Your task to perform on an android device: refresh tabs in the chrome app Image 0: 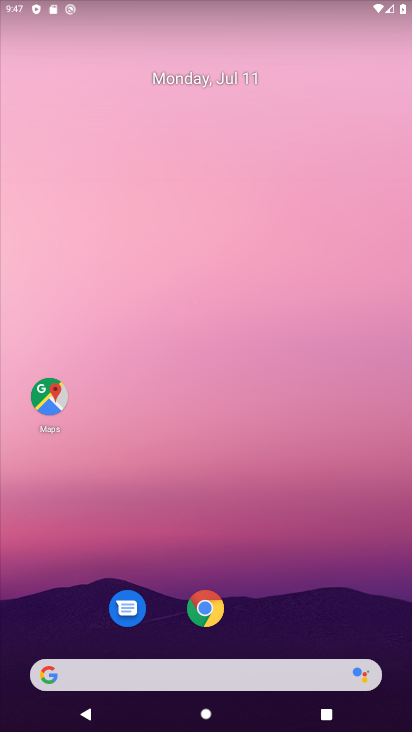
Step 0: click (204, 614)
Your task to perform on an android device: refresh tabs in the chrome app Image 1: 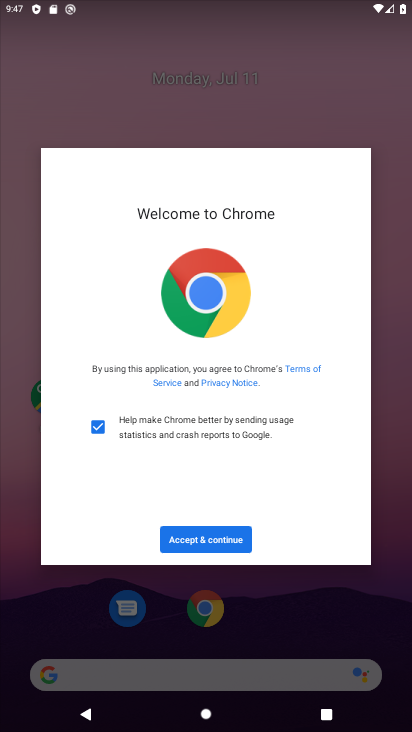
Step 1: click (188, 531)
Your task to perform on an android device: refresh tabs in the chrome app Image 2: 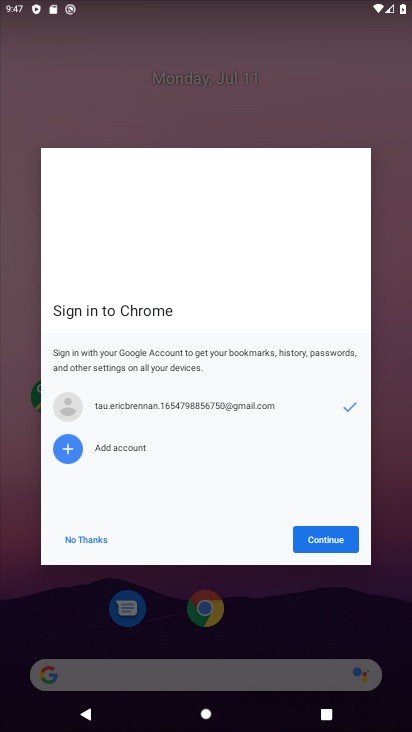
Step 2: click (325, 539)
Your task to perform on an android device: refresh tabs in the chrome app Image 3: 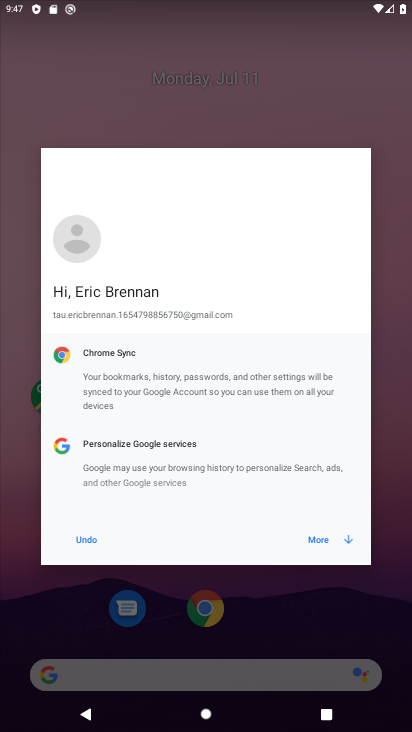
Step 3: click (319, 539)
Your task to perform on an android device: refresh tabs in the chrome app Image 4: 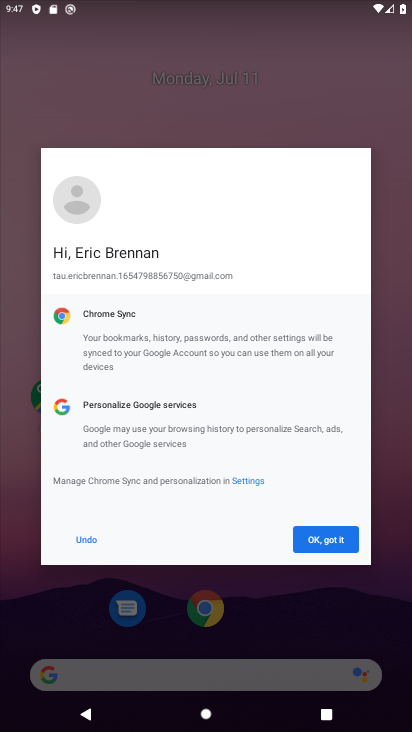
Step 4: click (321, 543)
Your task to perform on an android device: refresh tabs in the chrome app Image 5: 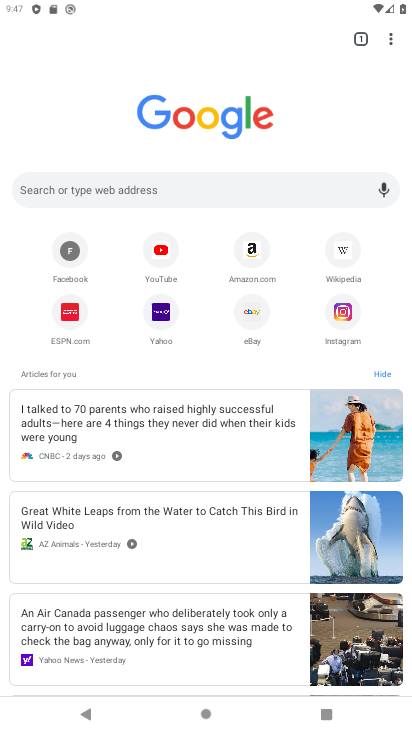
Step 5: click (388, 36)
Your task to perform on an android device: refresh tabs in the chrome app Image 6: 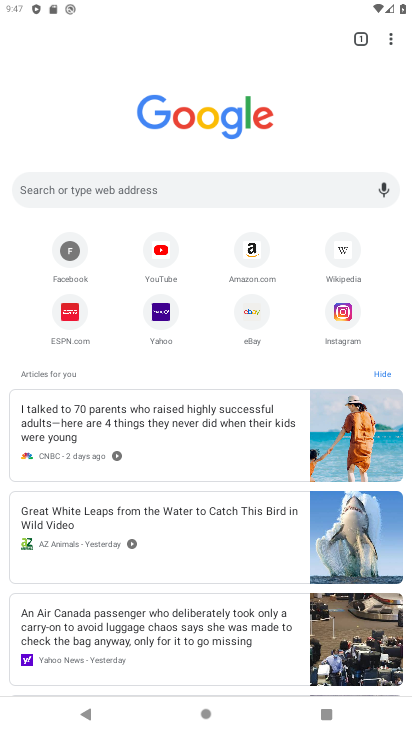
Step 6: click (390, 40)
Your task to perform on an android device: refresh tabs in the chrome app Image 7: 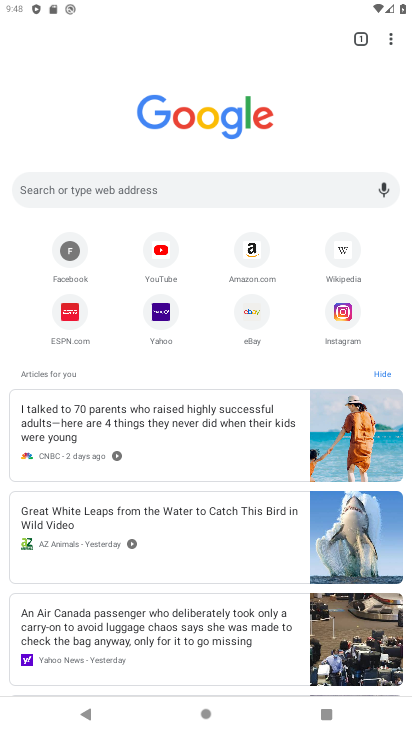
Step 7: click (386, 30)
Your task to perform on an android device: refresh tabs in the chrome app Image 8: 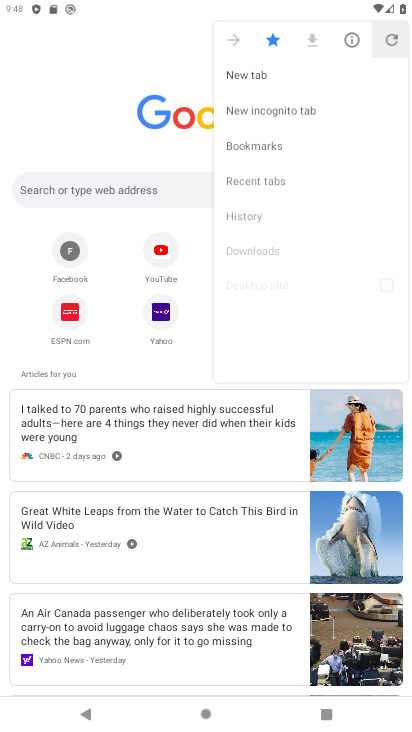
Step 8: click (389, 35)
Your task to perform on an android device: refresh tabs in the chrome app Image 9: 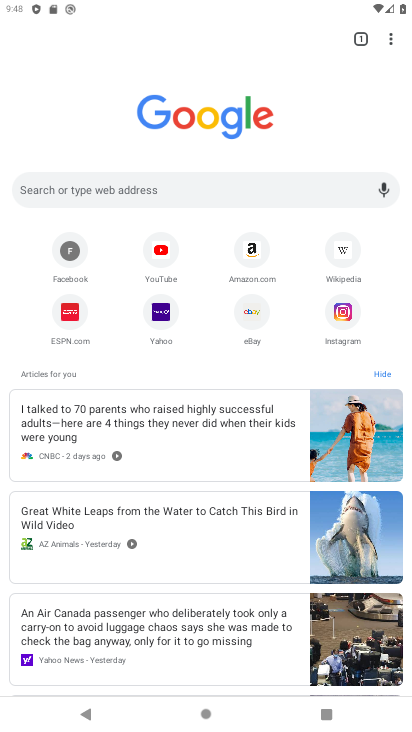
Step 9: click (386, 38)
Your task to perform on an android device: refresh tabs in the chrome app Image 10: 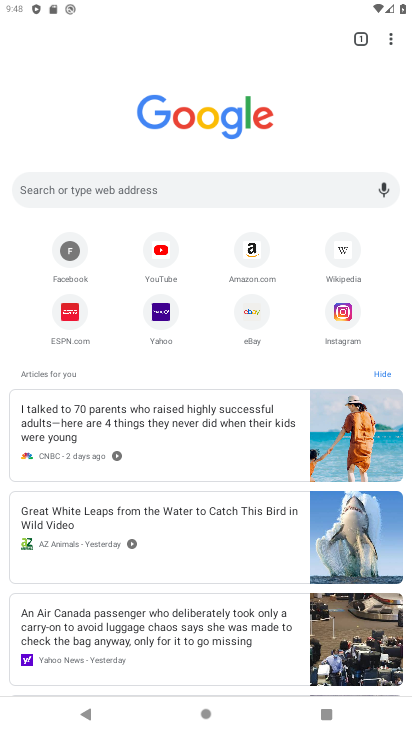
Step 10: task complete